Your task to perform on an android device: see creations saved in the google photos Image 0: 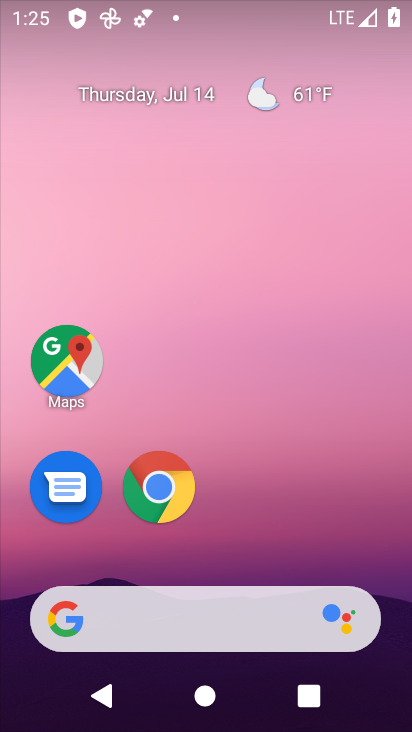
Step 0: drag from (377, 550) to (388, 204)
Your task to perform on an android device: see creations saved in the google photos Image 1: 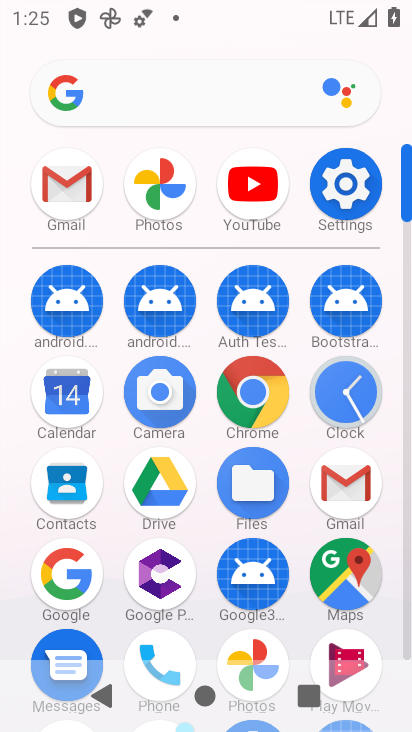
Step 1: click (159, 188)
Your task to perform on an android device: see creations saved in the google photos Image 2: 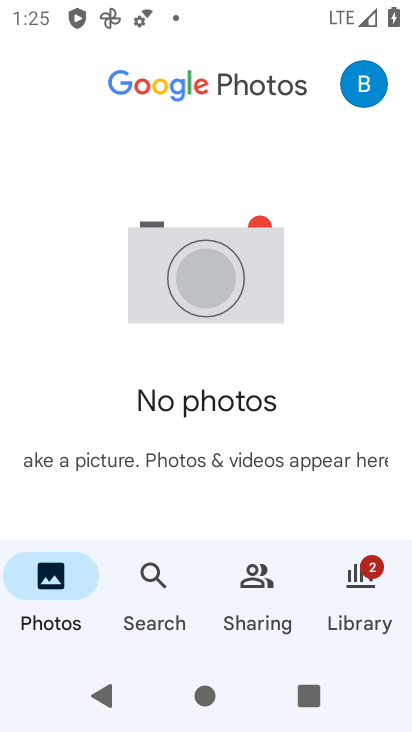
Step 2: click (147, 579)
Your task to perform on an android device: see creations saved in the google photos Image 3: 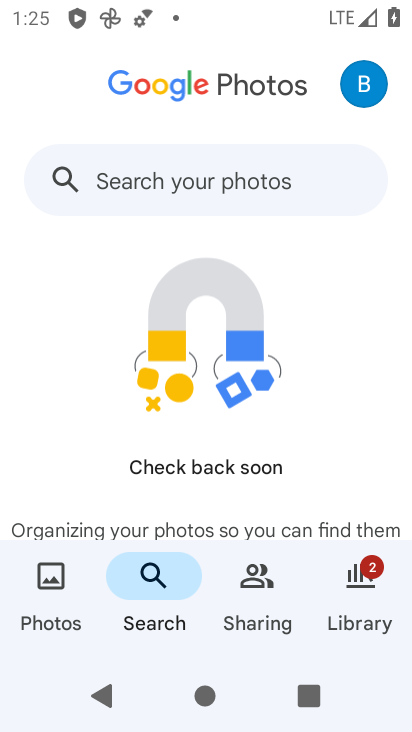
Step 3: drag from (316, 445) to (346, 262)
Your task to perform on an android device: see creations saved in the google photos Image 4: 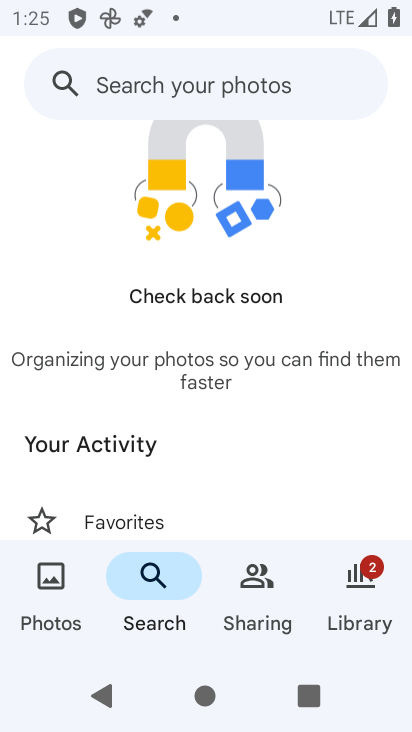
Step 4: drag from (323, 392) to (323, 268)
Your task to perform on an android device: see creations saved in the google photos Image 5: 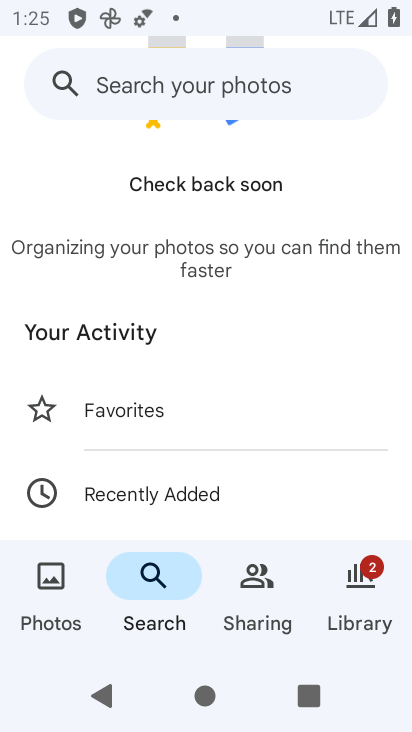
Step 5: drag from (282, 440) to (280, 310)
Your task to perform on an android device: see creations saved in the google photos Image 6: 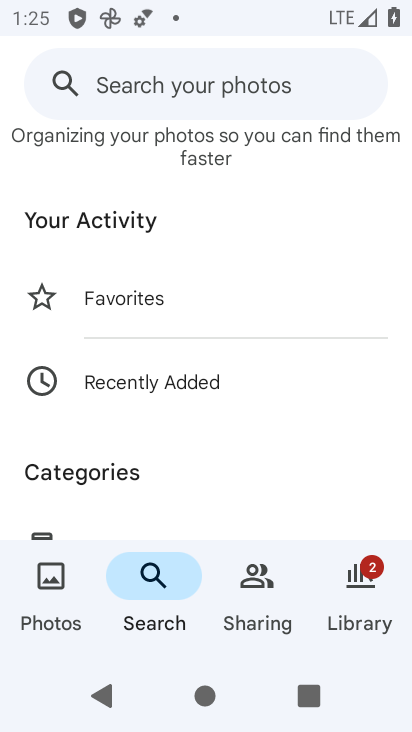
Step 6: drag from (276, 472) to (284, 311)
Your task to perform on an android device: see creations saved in the google photos Image 7: 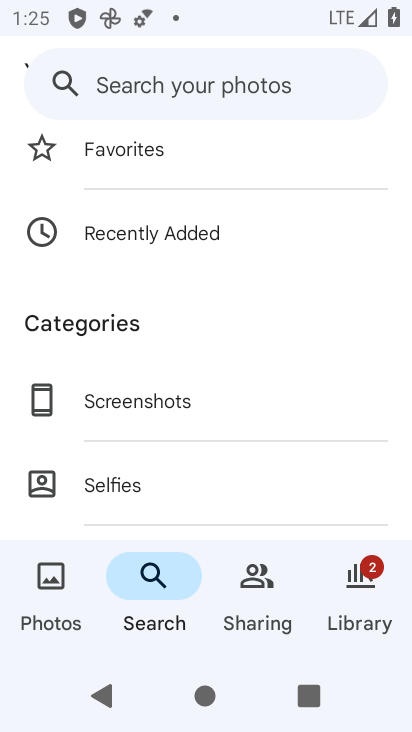
Step 7: drag from (303, 468) to (303, 348)
Your task to perform on an android device: see creations saved in the google photos Image 8: 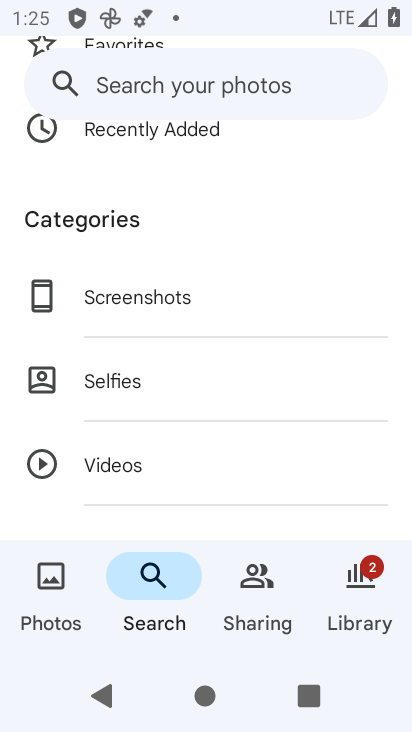
Step 8: drag from (295, 495) to (315, 344)
Your task to perform on an android device: see creations saved in the google photos Image 9: 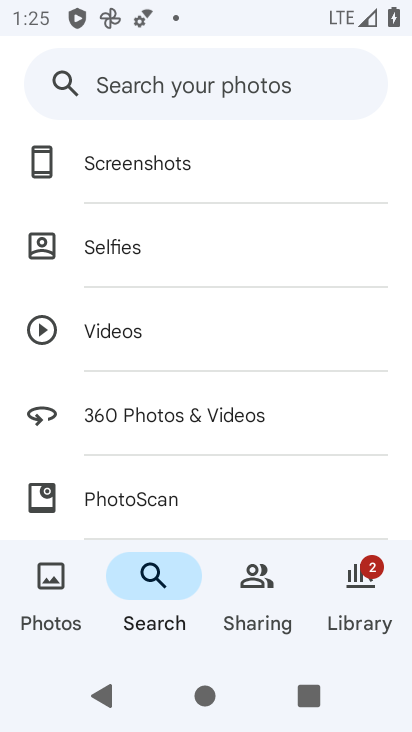
Step 9: drag from (317, 507) to (323, 326)
Your task to perform on an android device: see creations saved in the google photos Image 10: 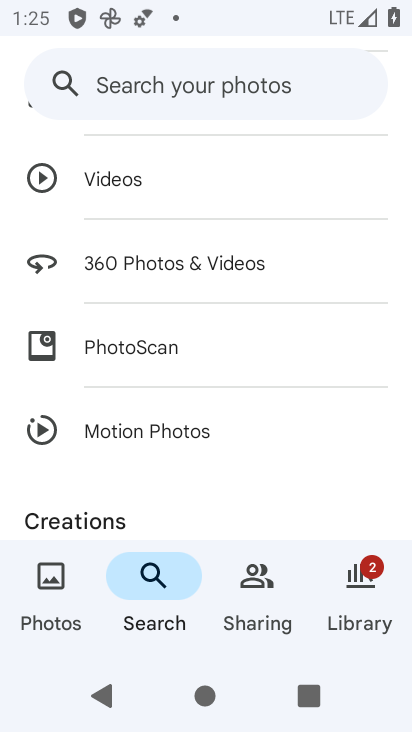
Step 10: drag from (303, 428) to (303, 294)
Your task to perform on an android device: see creations saved in the google photos Image 11: 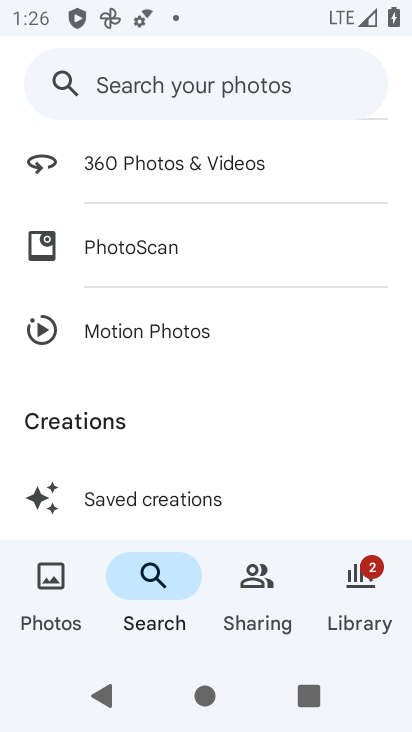
Step 11: drag from (283, 439) to (287, 269)
Your task to perform on an android device: see creations saved in the google photos Image 12: 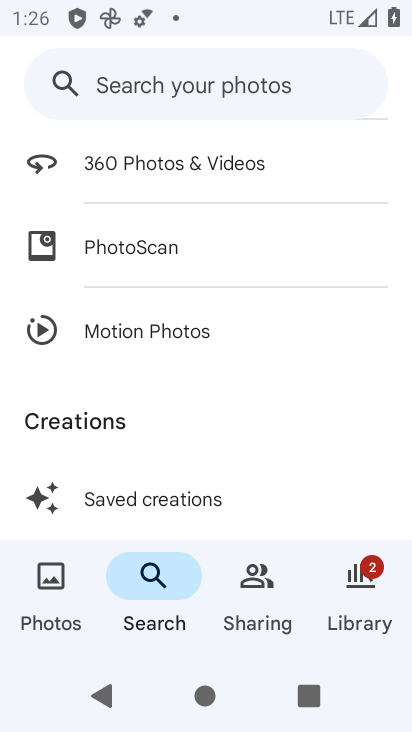
Step 12: click (208, 496)
Your task to perform on an android device: see creations saved in the google photos Image 13: 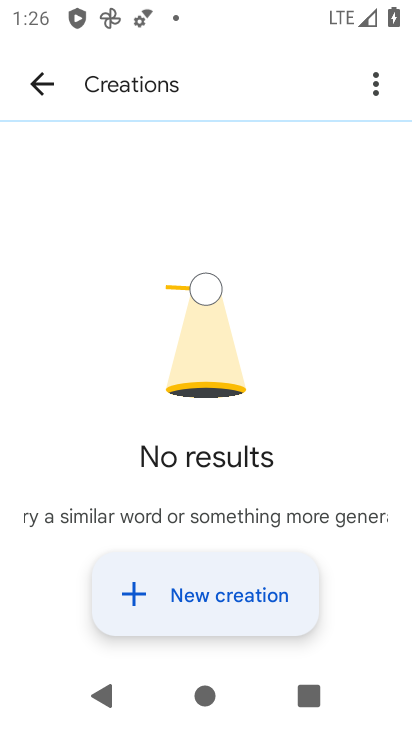
Step 13: task complete